Your task to perform on an android device: toggle pop-ups in chrome Image 0: 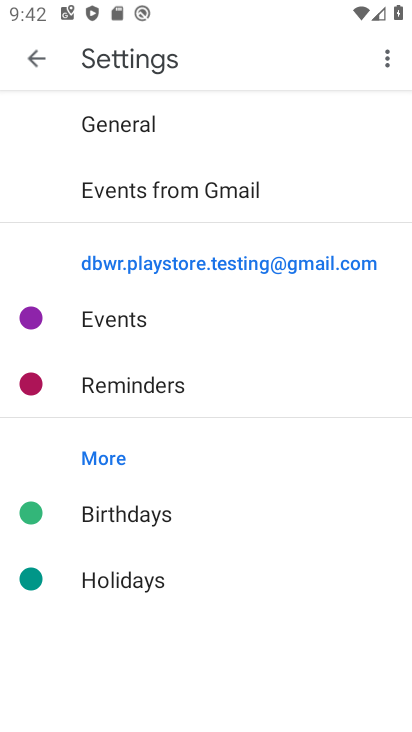
Step 0: press back button
Your task to perform on an android device: toggle pop-ups in chrome Image 1: 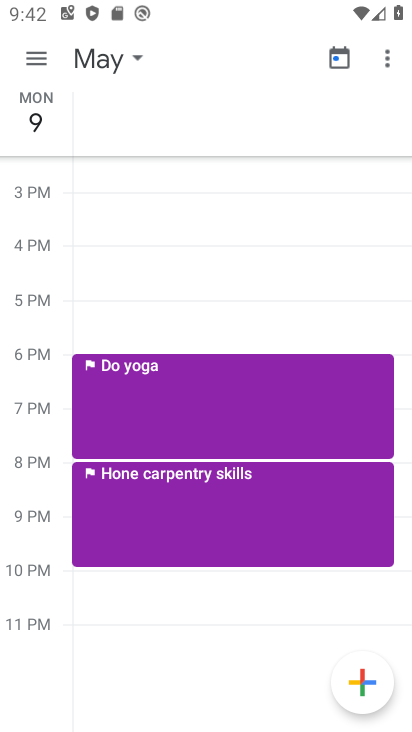
Step 1: press back button
Your task to perform on an android device: toggle pop-ups in chrome Image 2: 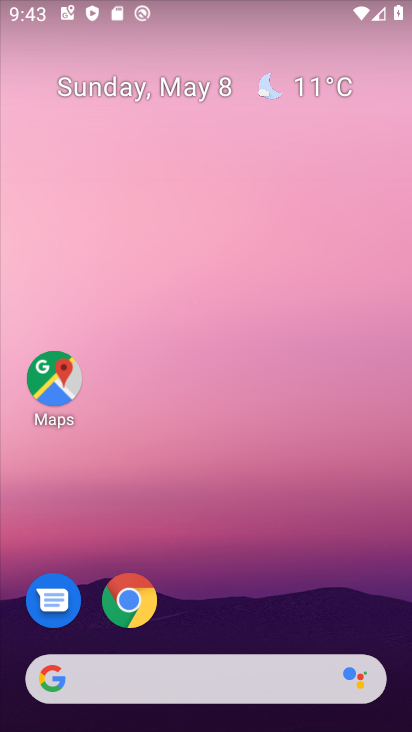
Step 2: drag from (276, 585) to (192, 4)
Your task to perform on an android device: toggle pop-ups in chrome Image 3: 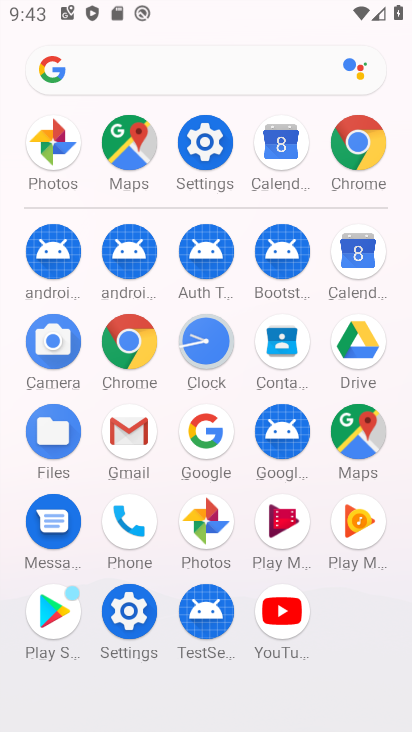
Step 3: click (130, 335)
Your task to perform on an android device: toggle pop-ups in chrome Image 4: 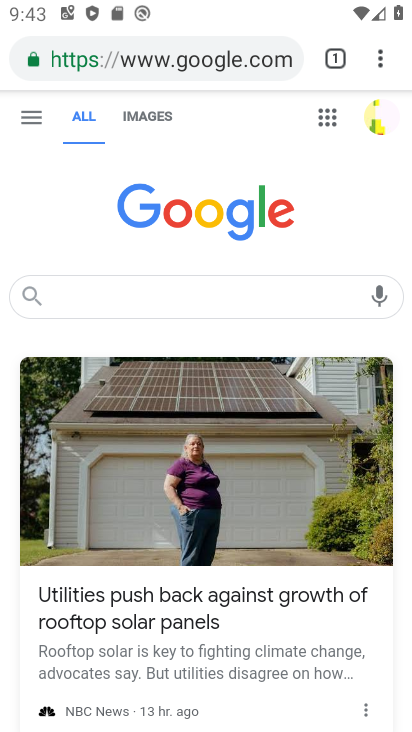
Step 4: drag from (377, 63) to (205, 639)
Your task to perform on an android device: toggle pop-ups in chrome Image 5: 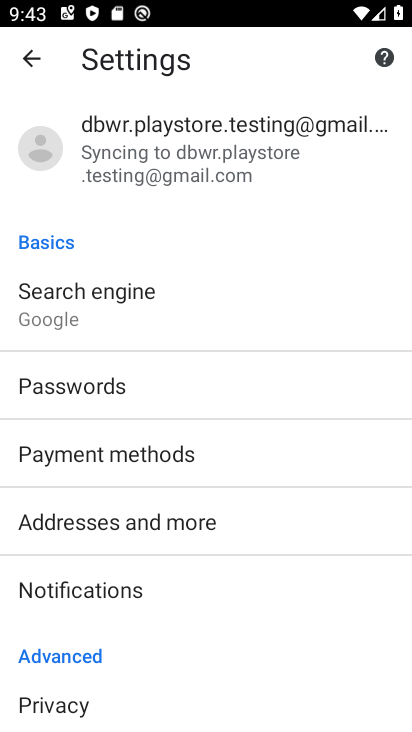
Step 5: drag from (200, 557) to (182, 200)
Your task to perform on an android device: toggle pop-ups in chrome Image 6: 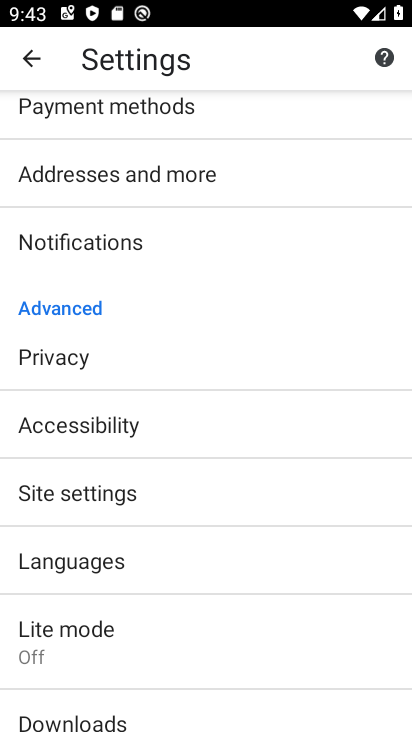
Step 6: click (135, 498)
Your task to perform on an android device: toggle pop-ups in chrome Image 7: 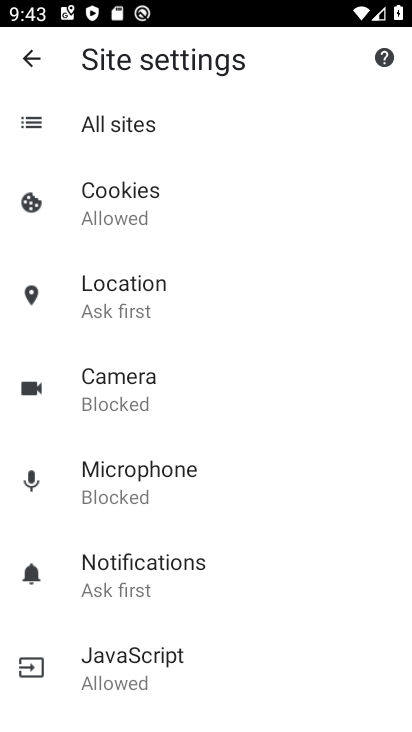
Step 7: drag from (268, 595) to (258, 239)
Your task to perform on an android device: toggle pop-ups in chrome Image 8: 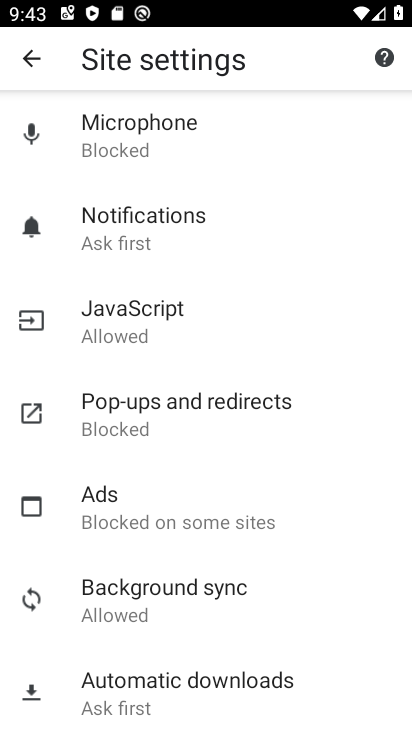
Step 8: click (198, 419)
Your task to perform on an android device: toggle pop-ups in chrome Image 9: 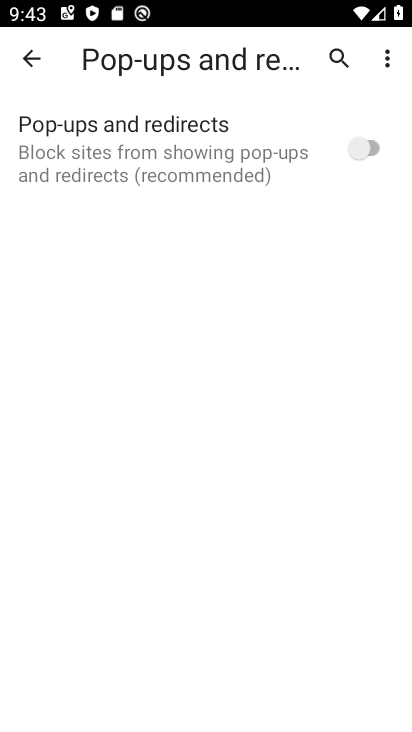
Step 9: click (354, 148)
Your task to perform on an android device: toggle pop-ups in chrome Image 10: 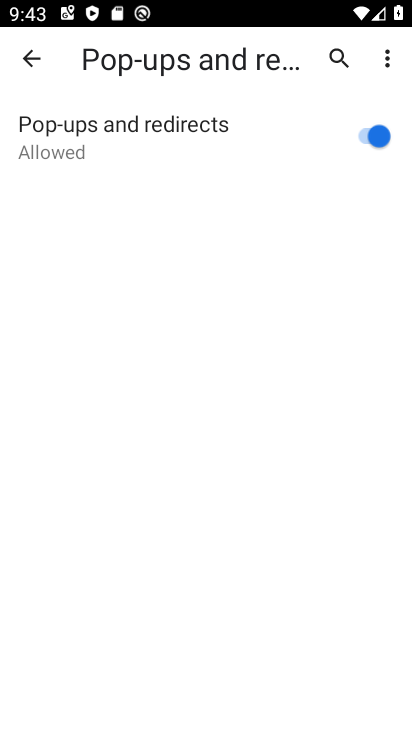
Step 10: task complete